Your task to perform on an android device: Open Maps and search for coffee Image 0: 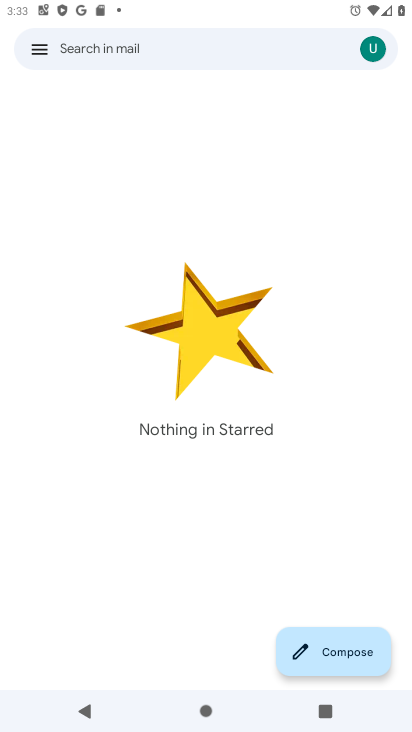
Step 0: press home button
Your task to perform on an android device: Open Maps and search for coffee Image 1: 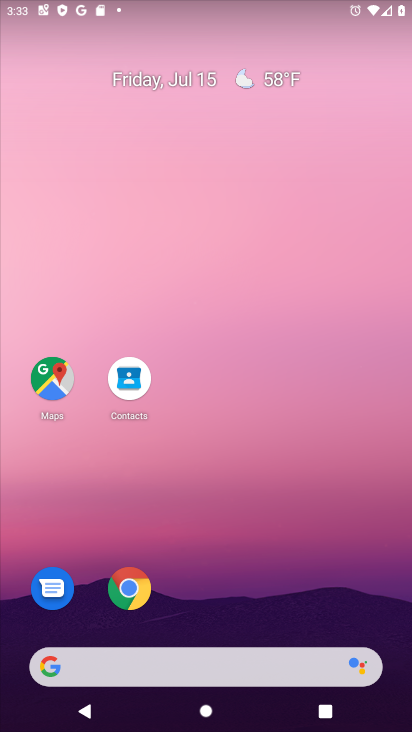
Step 1: click (58, 367)
Your task to perform on an android device: Open Maps and search for coffee Image 2: 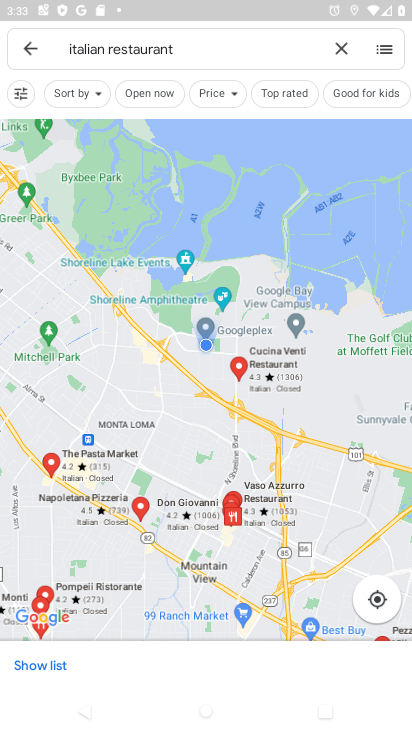
Step 2: click (346, 51)
Your task to perform on an android device: Open Maps and search for coffee Image 3: 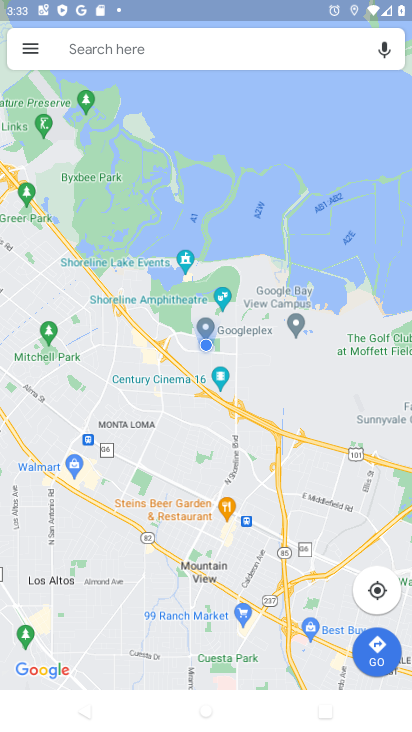
Step 3: type "coffee"
Your task to perform on an android device: Open Maps and search for coffee Image 4: 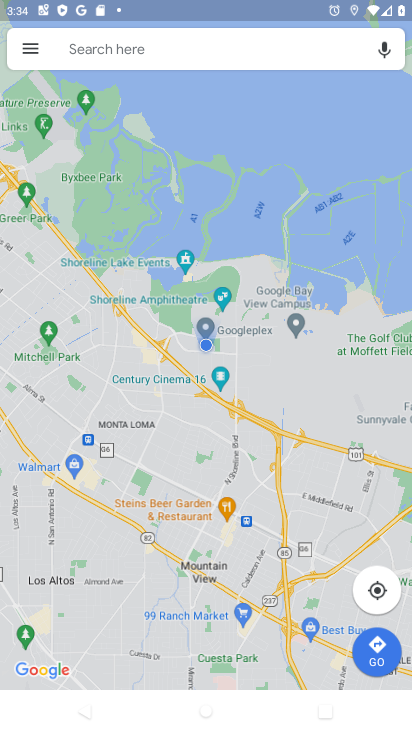
Step 4: click (136, 50)
Your task to perform on an android device: Open Maps and search for coffee Image 5: 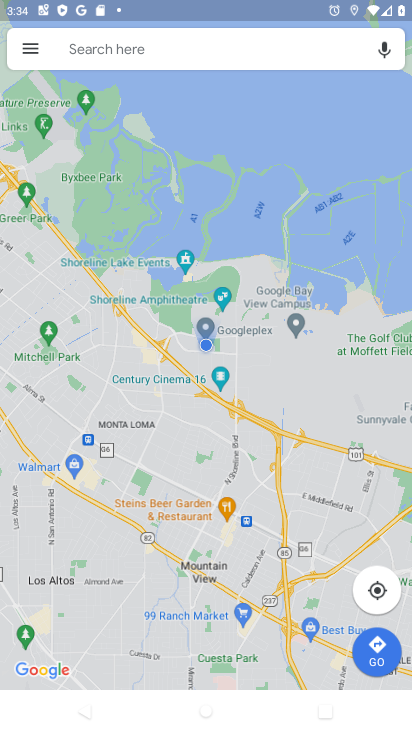
Step 5: click (136, 50)
Your task to perform on an android device: Open Maps and search for coffee Image 6: 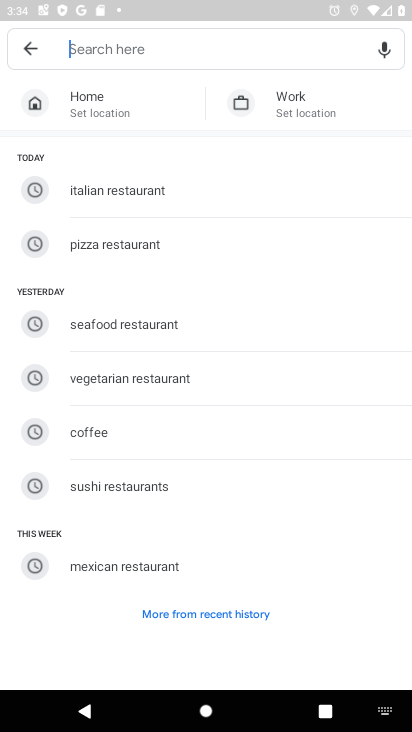
Step 6: click (136, 50)
Your task to perform on an android device: Open Maps and search for coffee Image 7: 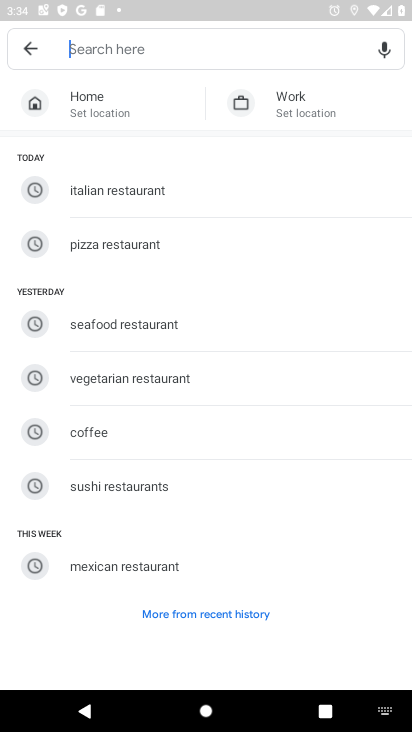
Step 7: click (144, 438)
Your task to perform on an android device: Open Maps and search for coffee Image 8: 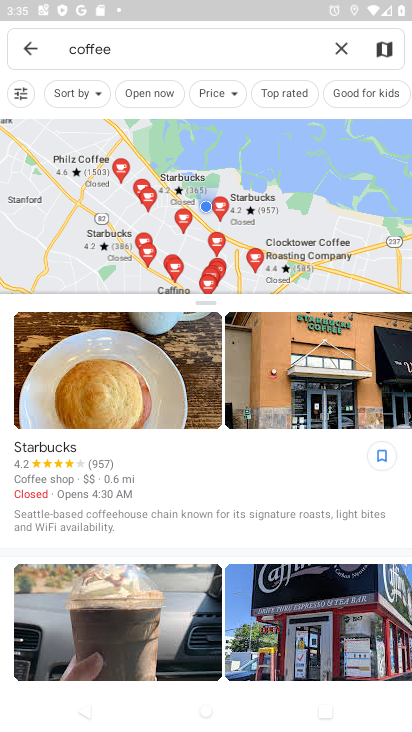
Step 8: task complete